Your task to perform on an android device: set default search engine in the chrome app Image 0: 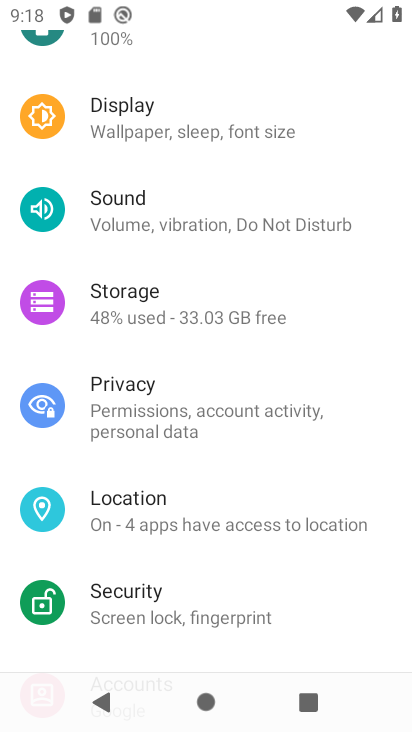
Step 0: press home button
Your task to perform on an android device: set default search engine in the chrome app Image 1: 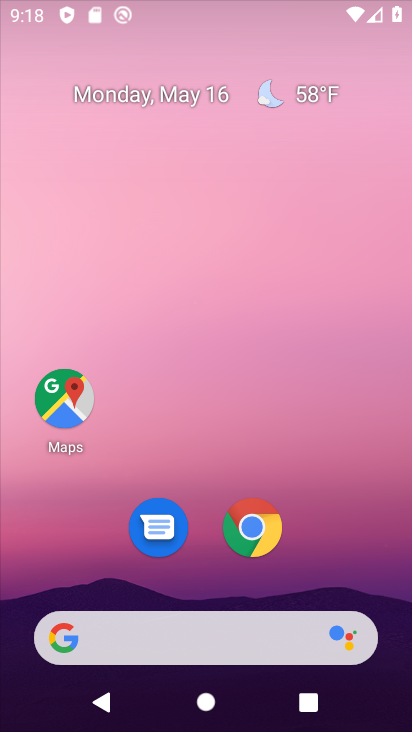
Step 1: drag from (205, 551) to (231, 234)
Your task to perform on an android device: set default search engine in the chrome app Image 2: 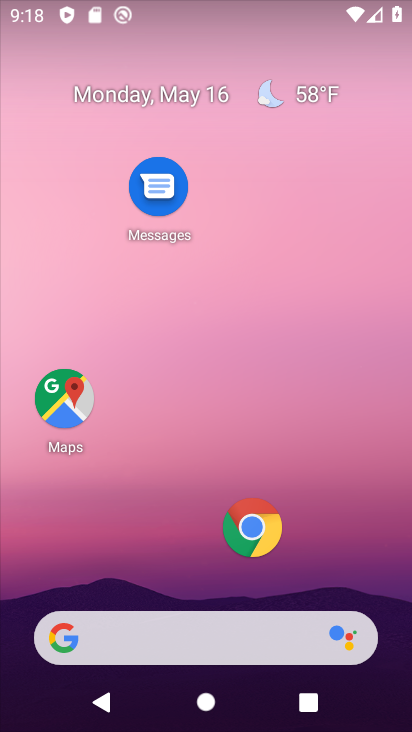
Step 2: click (250, 535)
Your task to perform on an android device: set default search engine in the chrome app Image 3: 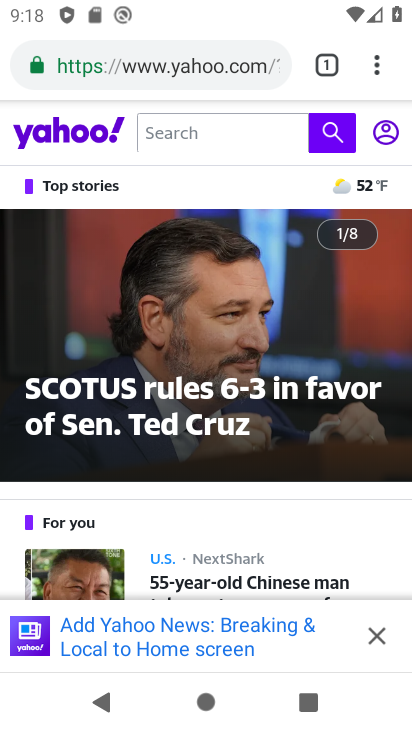
Step 3: click (369, 78)
Your task to perform on an android device: set default search engine in the chrome app Image 4: 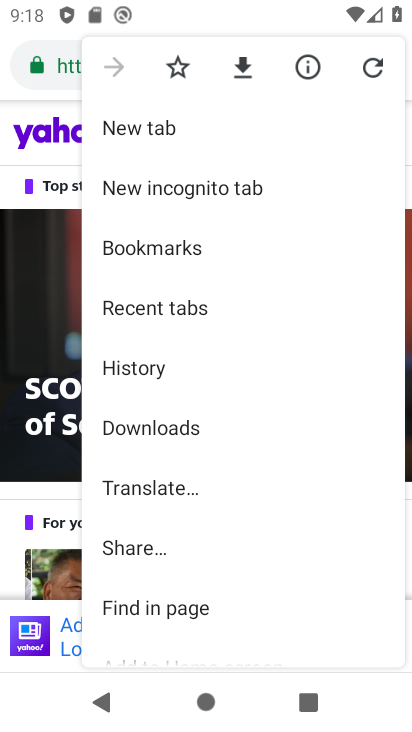
Step 4: drag from (172, 606) to (207, 141)
Your task to perform on an android device: set default search engine in the chrome app Image 5: 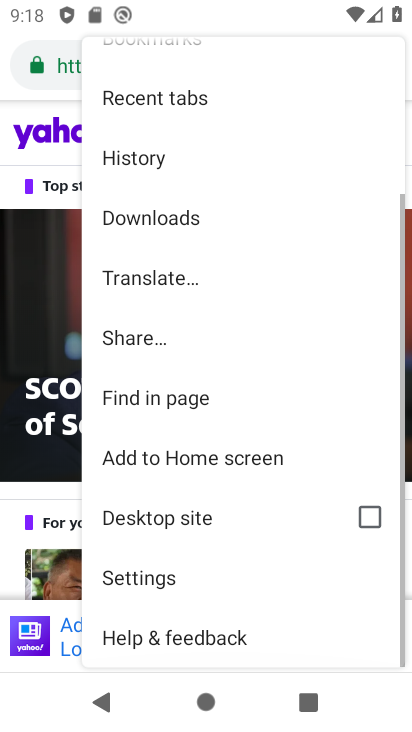
Step 5: click (176, 570)
Your task to perform on an android device: set default search engine in the chrome app Image 6: 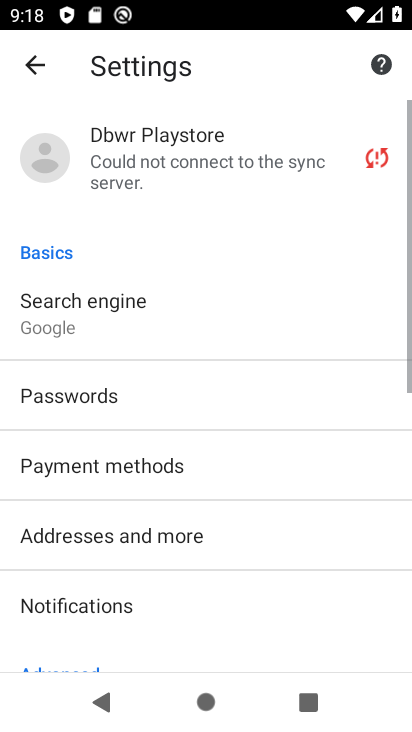
Step 6: drag from (206, 520) to (212, 483)
Your task to perform on an android device: set default search engine in the chrome app Image 7: 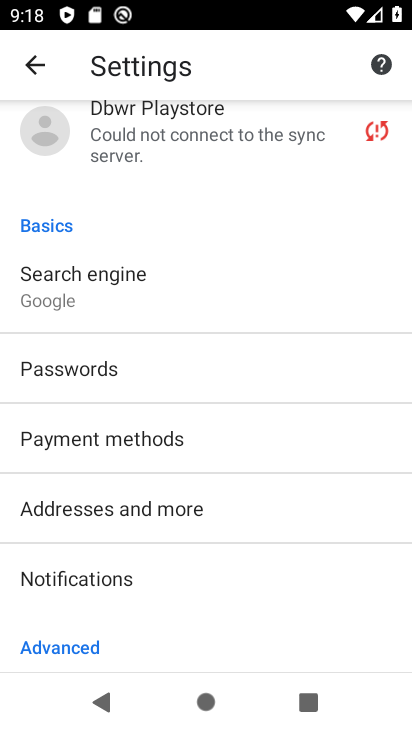
Step 7: click (105, 296)
Your task to perform on an android device: set default search engine in the chrome app Image 8: 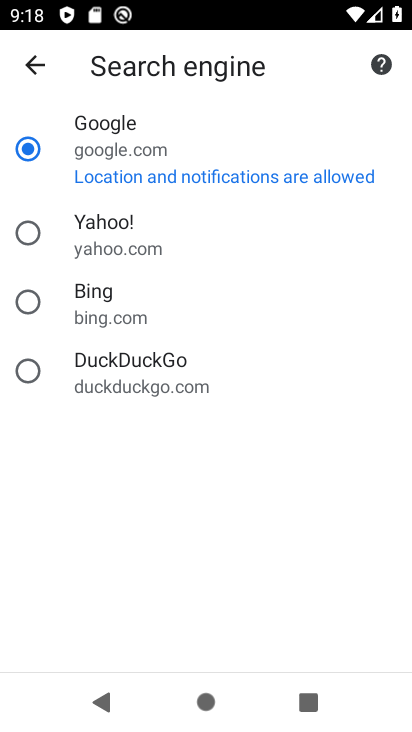
Step 8: click (32, 234)
Your task to perform on an android device: set default search engine in the chrome app Image 9: 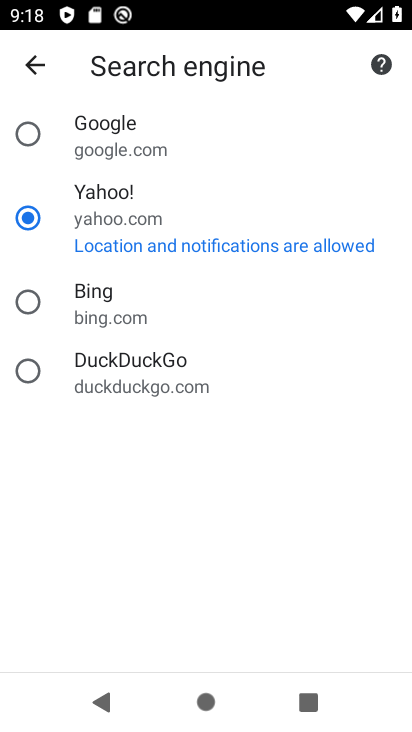
Step 9: task complete